Your task to perform on an android device: set the timer Image 0: 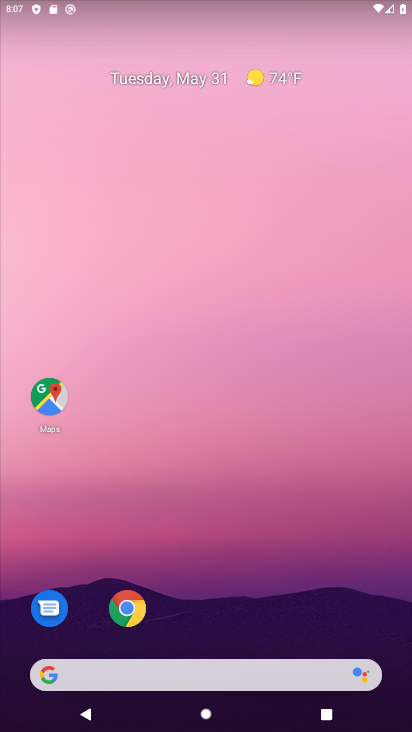
Step 0: drag from (322, 627) to (376, 16)
Your task to perform on an android device: set the timer Image 1: 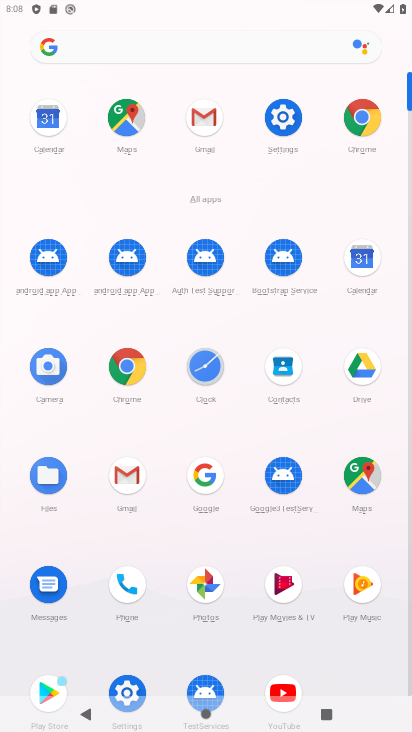
Step 1: click (194, 368)
Your task to perform on an android device: set the timer Image 2: 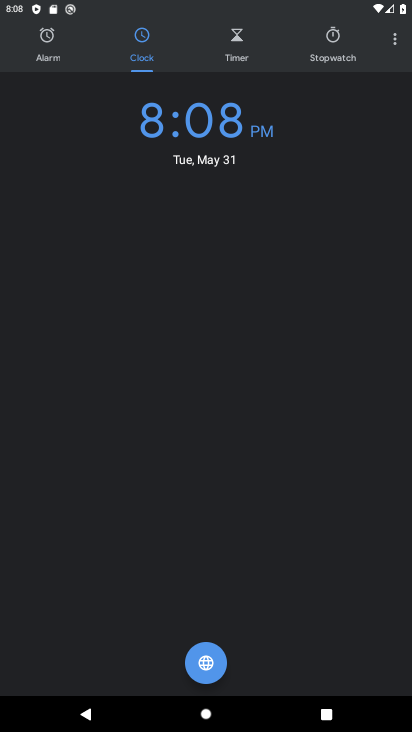
Step 2: click (235, 57)
Your task to perform on an android device: set the timer Image 3: 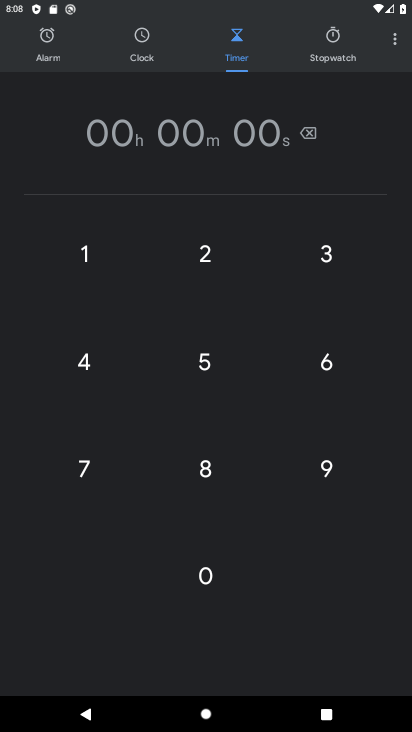
Step 3: click (192, 237)
Your task to perform on an android device: set the timer Image 4: 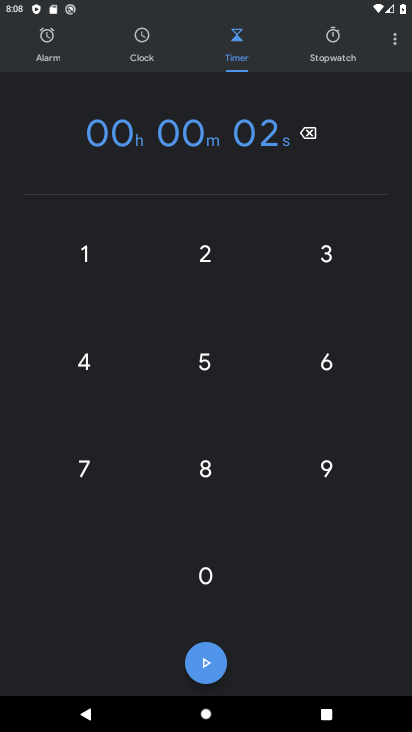
Step 4: click (217, 378)
Your task to perform on an android device: set the timer Image 5: 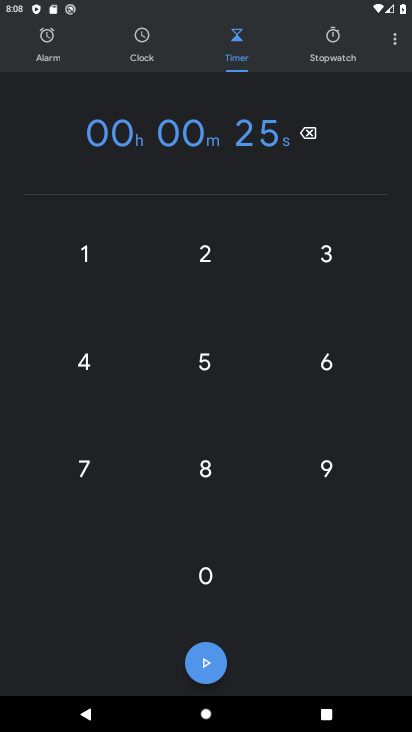
Step 5: task complete